Your task to perform on an android device: Open settings Image 0: 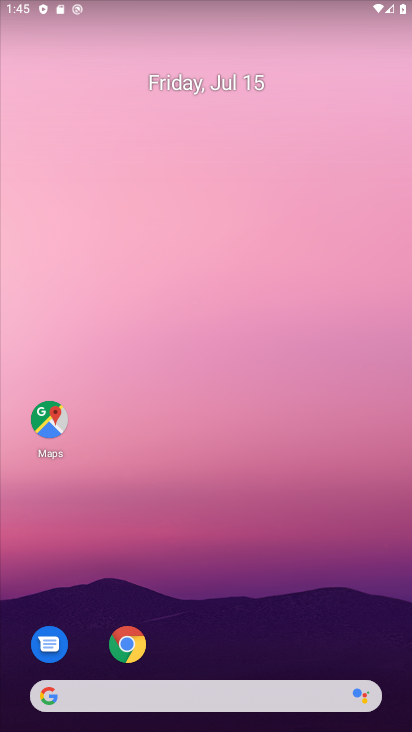
Step 0: drag from (12, 713) to (228, 152)
Your task to perform on an android device: Open settings Image 1: 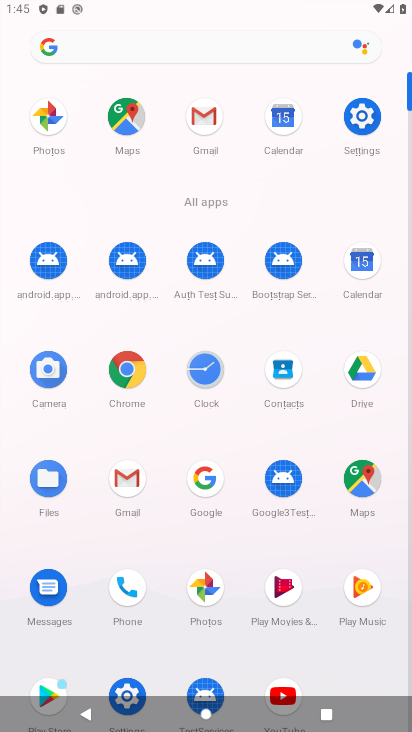
Step 1: click (115, 685)
Your task to perform on an android device: Open settings Image 2: 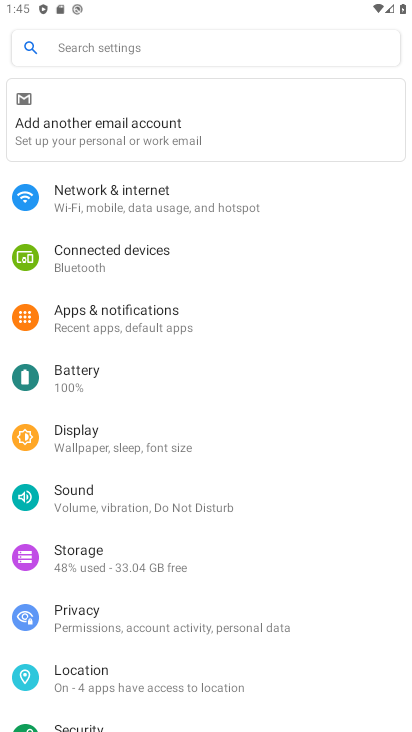
Step 2: task complete